Your task to perform on an android device: What is the news today? Image 0: 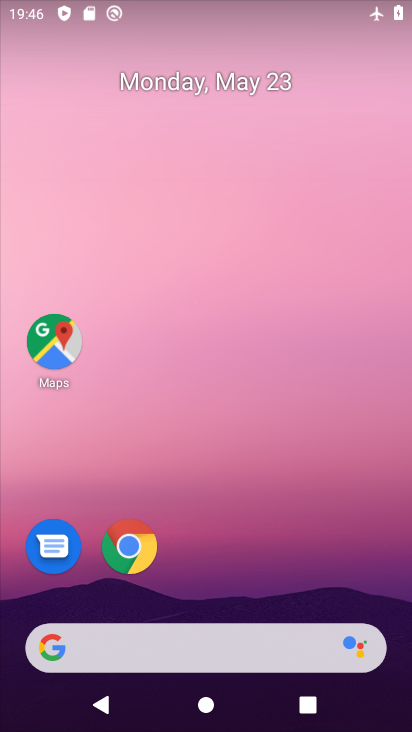
Step 0: drag from (5, 251) to (410, 288)
Your task to perform on an android device: What is the news today? Image 1: 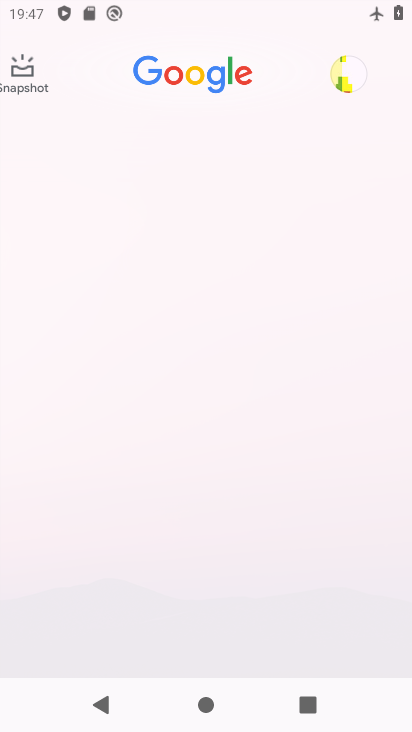
Step 1: task complete